Your task to perform on an android device: install app "Google Sheets" Image 0: 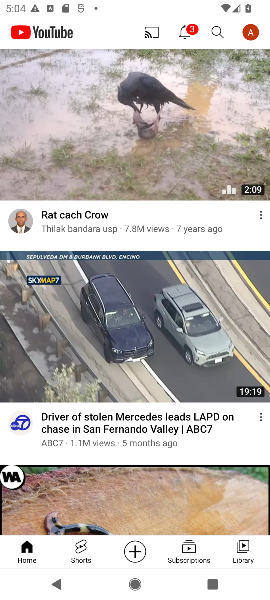
Step 0: press home button
Your task to perform on an android device: install app "Google Sheets" Image 1: 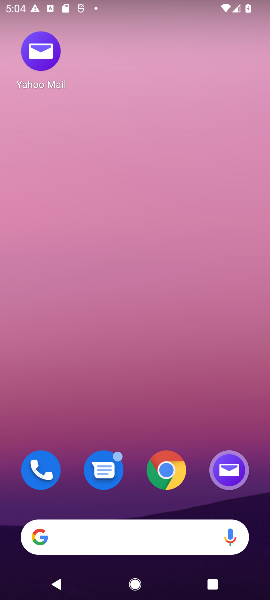
Step 1: drag from (133, 488) to (128, 188)
Your task to perform on an android device: install app "Google Sheets" Image 2: 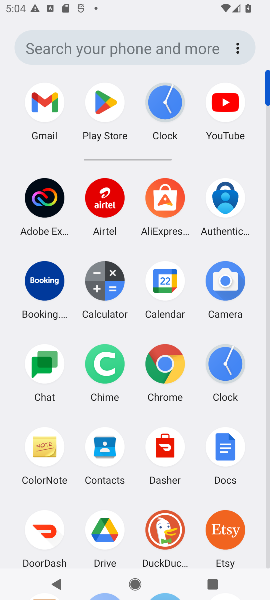
Step 2: click (110, 99)
Your task to perform on an android device: install app "Google Sheets" Image 3: 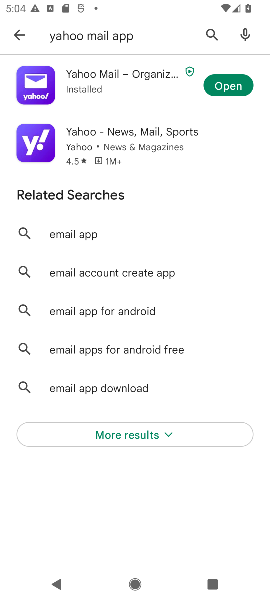
Step 3: click (14, 34)
Your task to perform on an android device: install app "Google Sheets" Image 4: 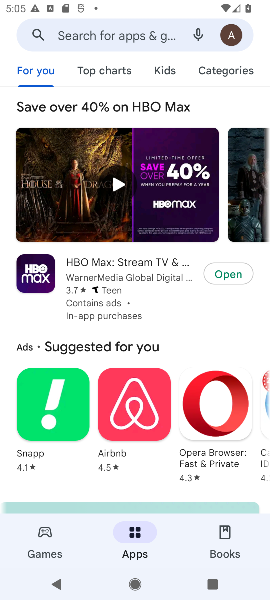
Step 4: click (86, 29)
Your task to perform on an android device: install app "Google Sheets" Image 5: 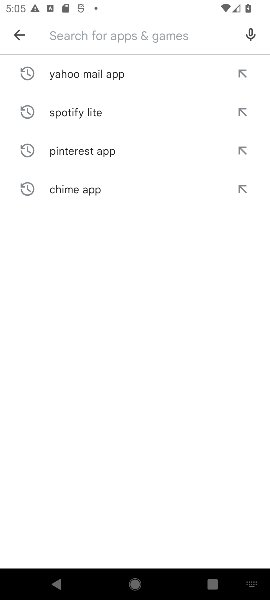
Step 5: type "Google Sheets "
Your task to perform on an android device: install app "Google Sheets" Image 6: 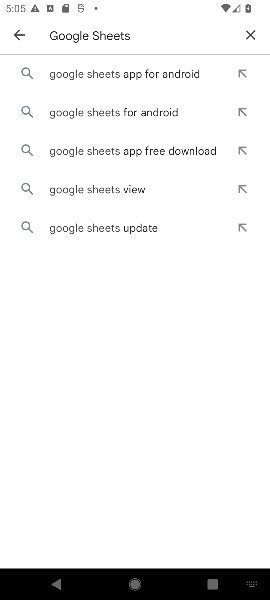
Step 6: click (116, 71)
Your task to perform on an android device: install app "Google Sheets" Image 7: 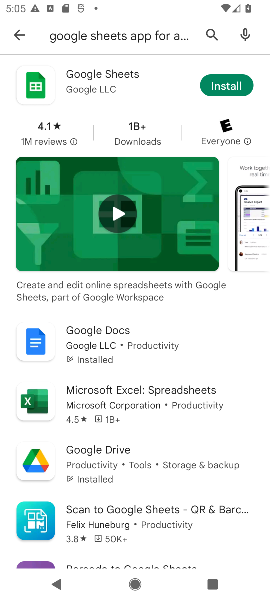
Step 7: click (233, 84)
Your task to perform on an android device: install app "Google Sheets" Image 8: 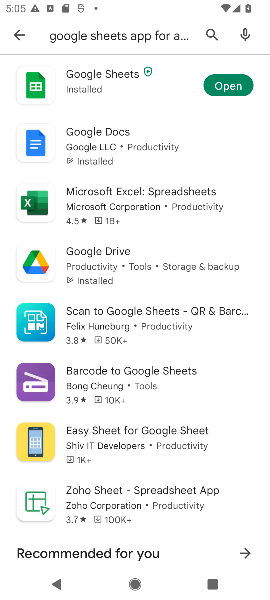
Step 8: click (223, 79)
Your task to perform on an android device: install app "Google Sheets" Image 9: 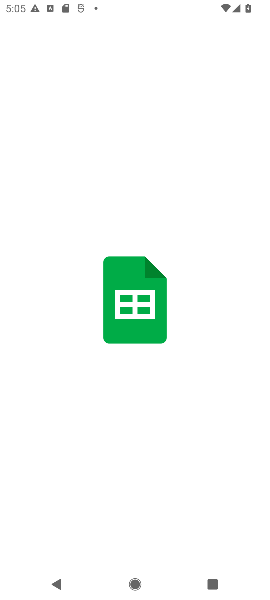
Step 9: task complete